Your task to perform on an android device: change notifications settings Image 0: 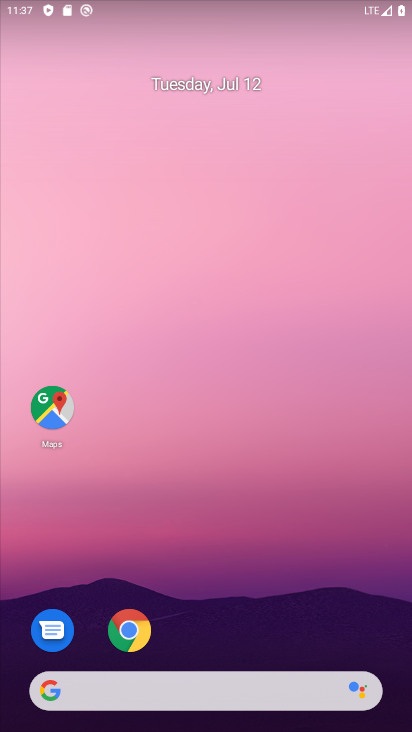
Step 0: drag from (398, 672) to (261, 82)
Your task to perform on an android device: change notifications settings Image 1: 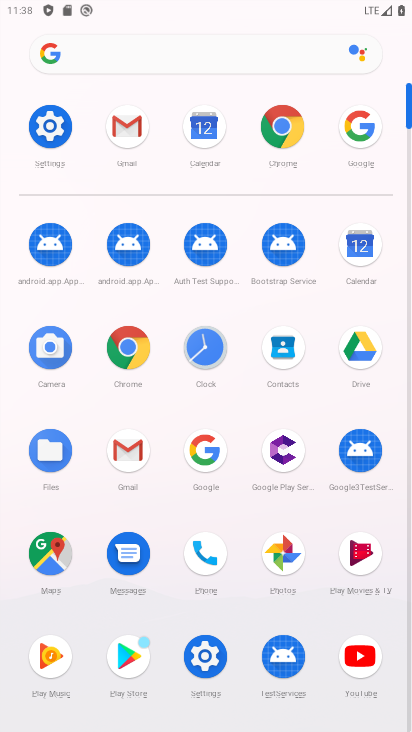
Step 1: click (195, 659)
Your task to perform on an android device: change notifications settings Image 2: 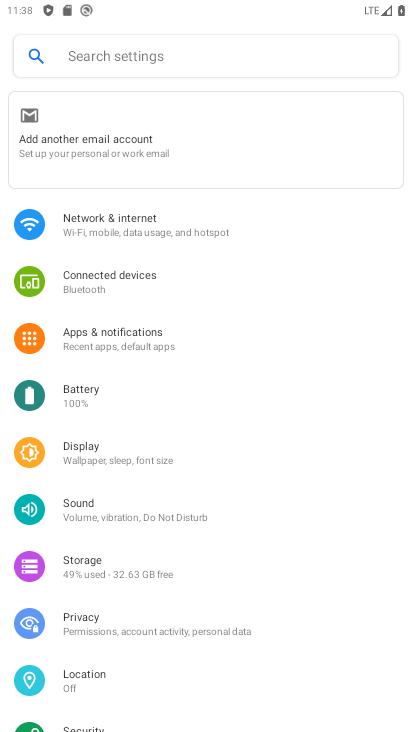
Step 2: click (152, 335)
Your task to perform on an android device: change notifications settings Image 3: 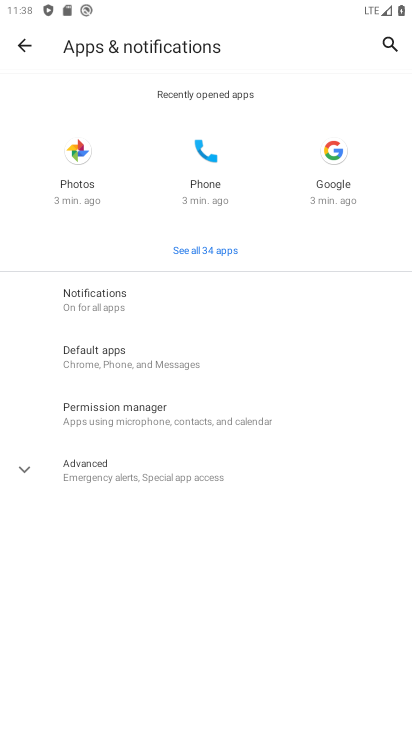
Step 3: click (145, 301)
Your task to perform on an android device: change notifications settings Image 4: 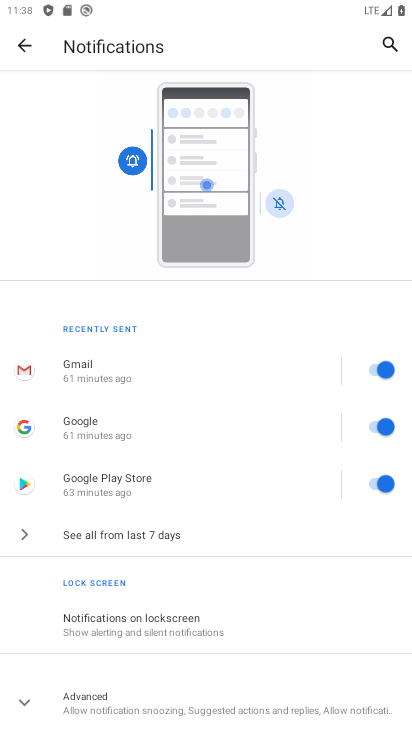
Step 4: task complete